Your task to perform on an android device: Open Maps and search for coffee Image 0: 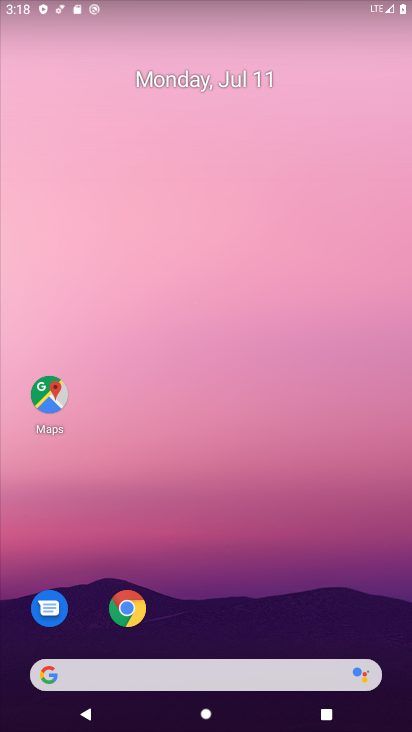
Step 0: click (49, 388)
Your task to perform on an android device: Open Maps and search for coffee Image 1: 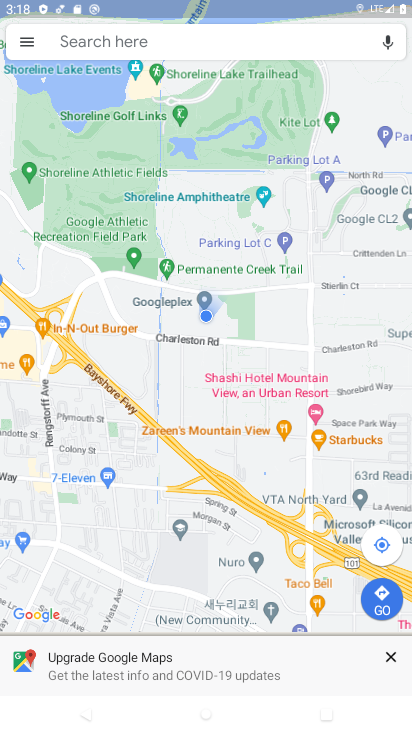
Step 1: click (233, 45)
Your task to perform on an android device: Open Maps and search for coffee Image 2: 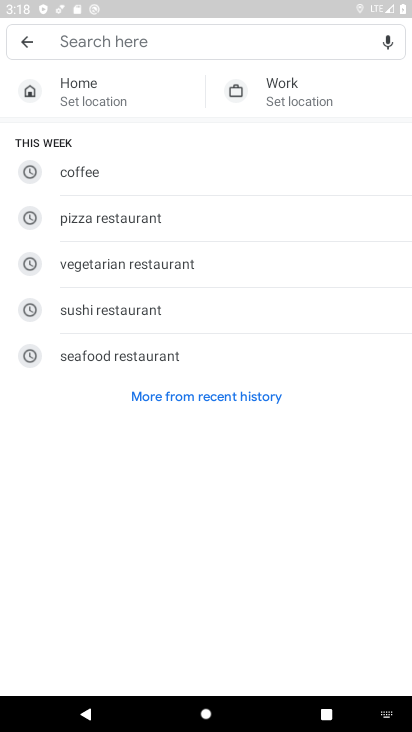
Step 2: click (111, 177)
Your task to perform on an android device: Open Maps and search for coffee Image 3: 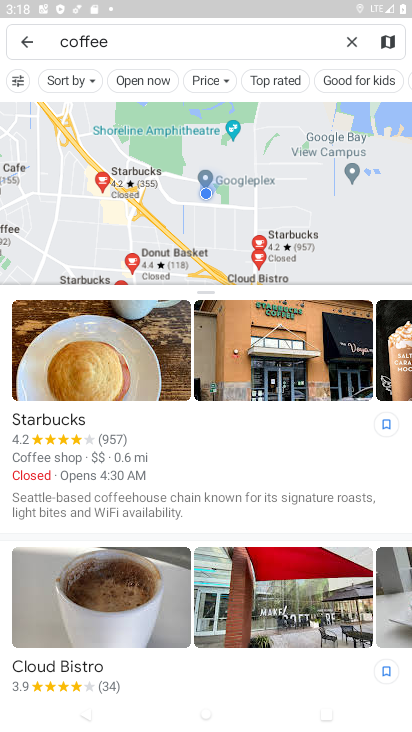
Step 3: task complete